Your task to perform on an android device: stop showing notifications on the lock screen Image 0: 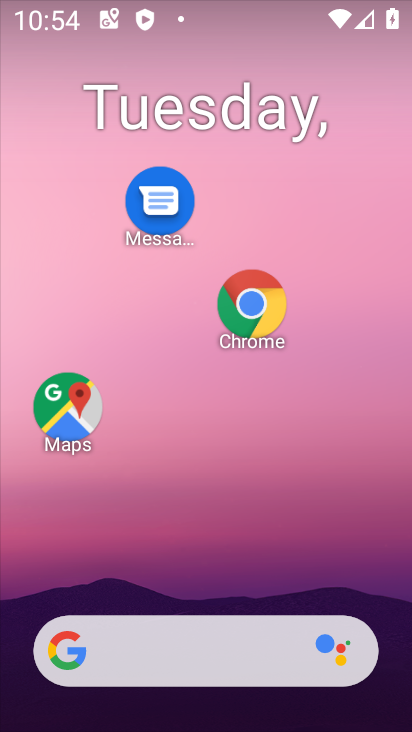
Step 0: drag from (191, 701) to (227, 273)
Your task to perform on an android device: stop showing notifications on the lock screen Image 1: 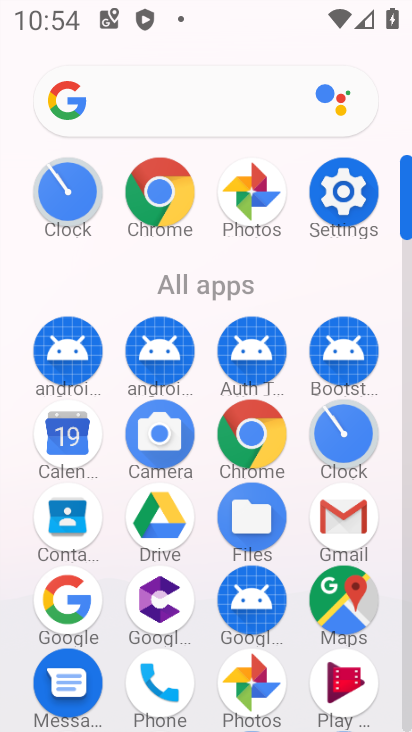
Step 1: click (331, 190)
Your task to perform on an android device: stop showing notifications on the lock screen Image 2: 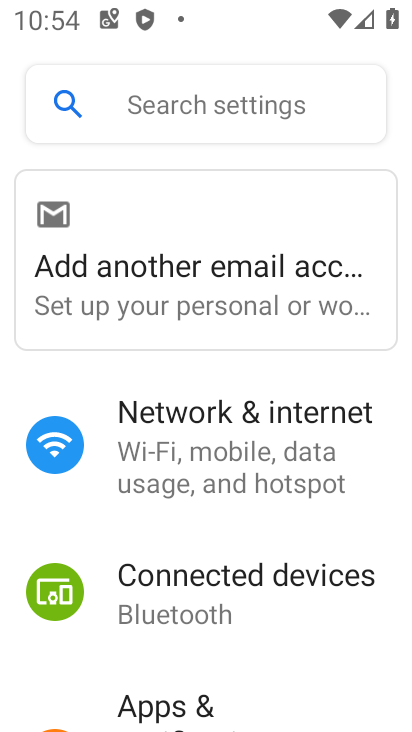
Step 2: click (177, 701)
Your task to perform on an android device: stop showing notifications on the lock screen Image 3: 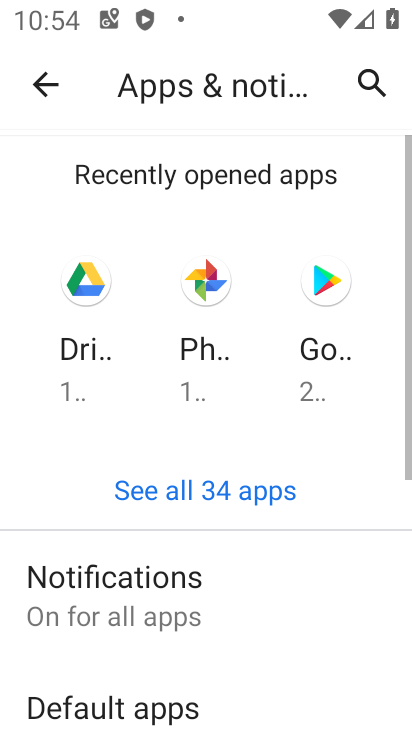
Step 3: drag from (214, 700) to (272, 297)
Your task to perform on an android device: stop showing notifications on the lock screen Image 4: 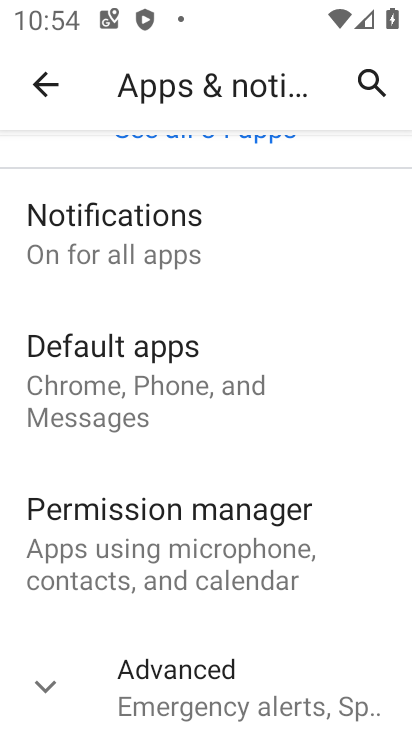
Step 4: click (190, 251)
Your task to perform on an android device: stop showing notifications on the lock screen Image 5: 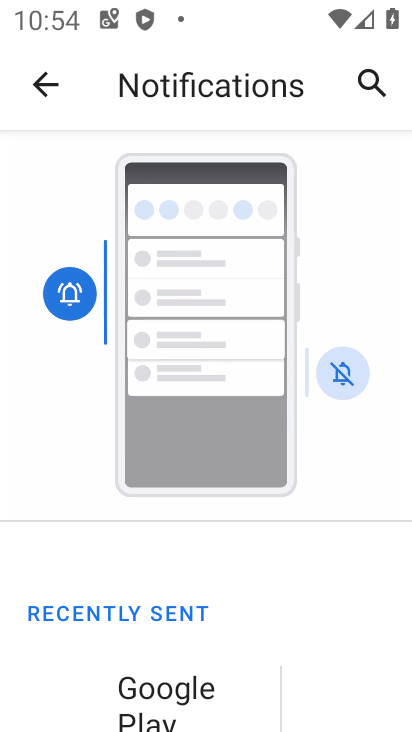
Step 5: drag from (219, 592) to (302, 145)
Your task to perform on an android device: stop showing notifications on the lock screen Image 6: 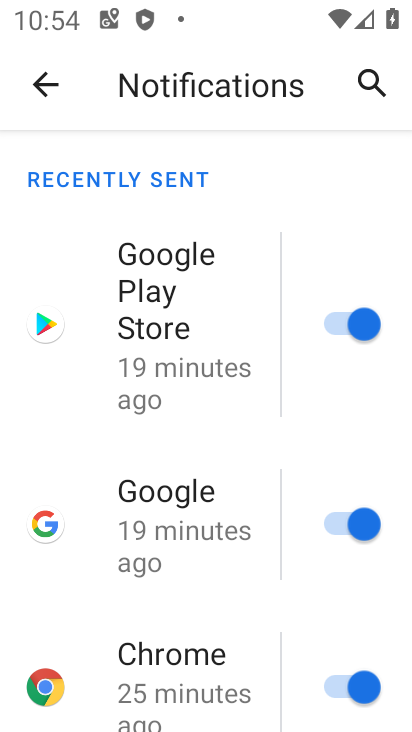
Step 6: drag from (145, 619) to (178, 206)
Your task to perform on an android device: stop showing notifications on the lock screen Image 7: 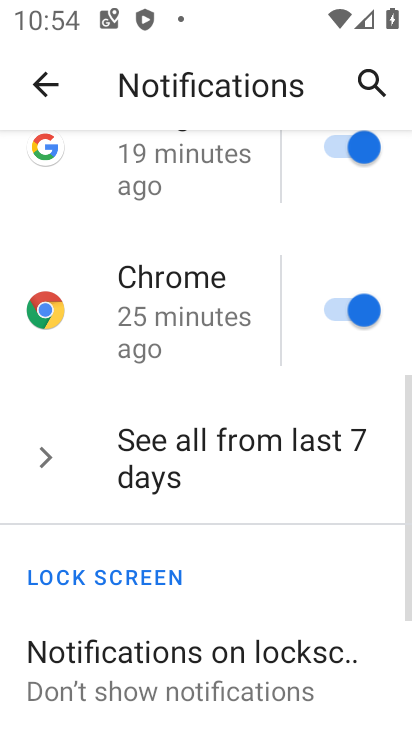
Step 7: click (161, 656)
Your task to perform on an android device: stop showing notifications on the lock screen Image 8: 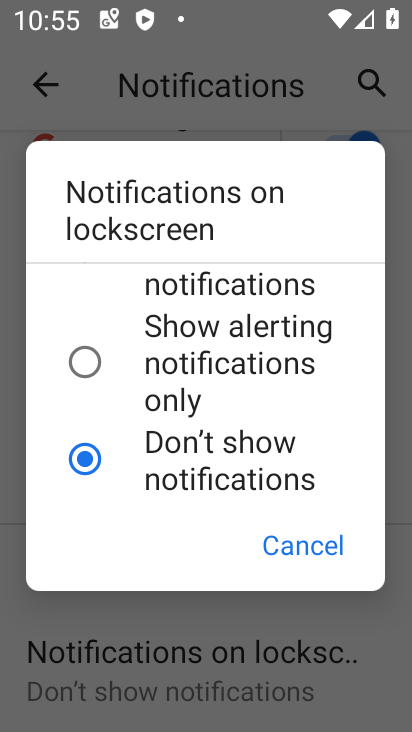
Step 8: task complete